Your task to perform on an android device: allow cookies in the chrome app Image 0: 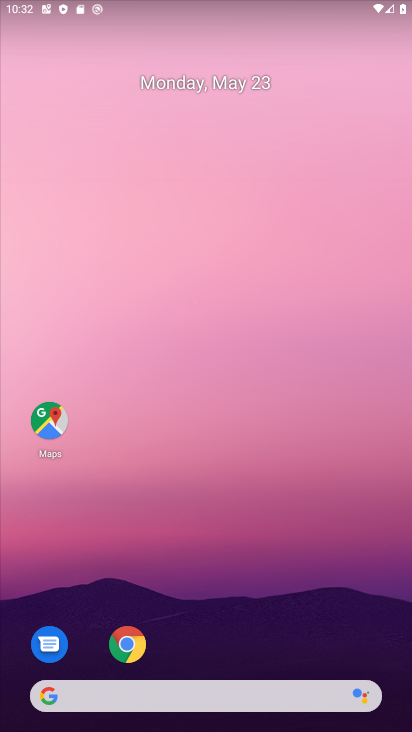
Step 0: drag from (333, 692) to (192, 246)
Your task to perform on an android device: allow cookies in the chrome app Image 1: 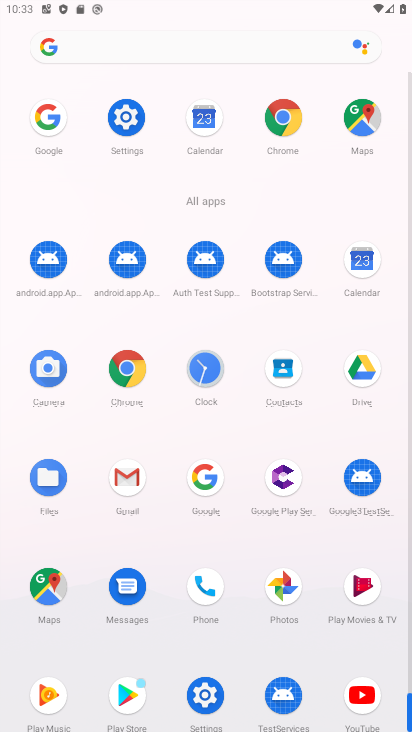
Step 1: click (275, 125)
Your task to perform on an android device: allow cookies in the chrome app Image 2: 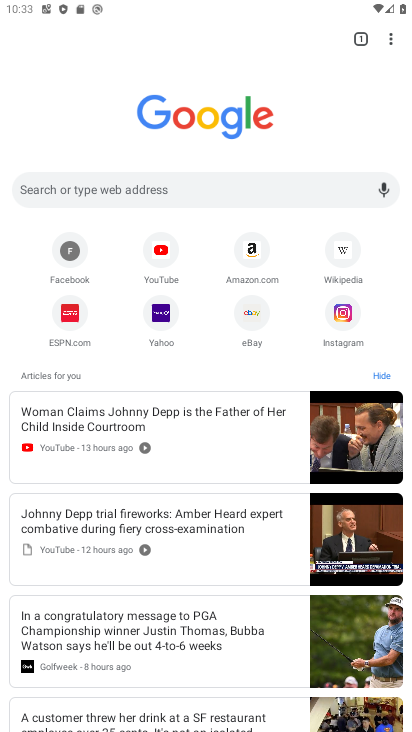
Step 2: click (384, 35)
Your task to perform on an android device: allow cookies in the chrome app Image 3: 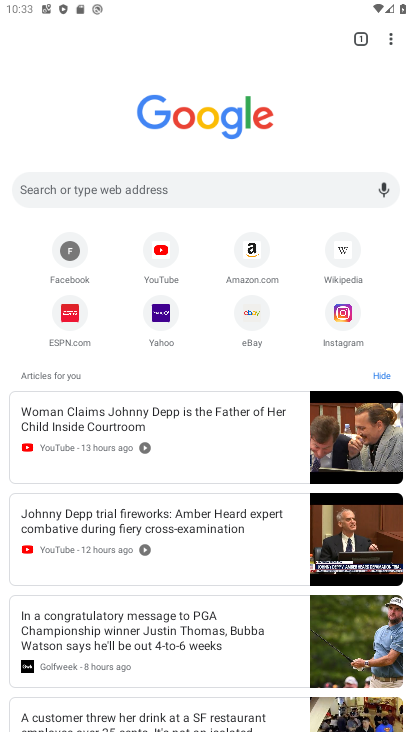
Step 3: drag from (388, 39) to (246, 321)
Your task to perform on an android device: allow cookies in the chrome app Image 4: 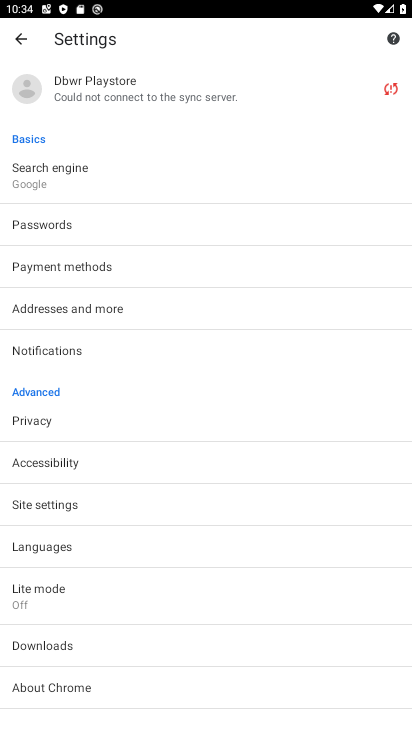
Step 4: click (250, 320)
Your task to perform on an android device: allow cookies in the chrome app Image 5: 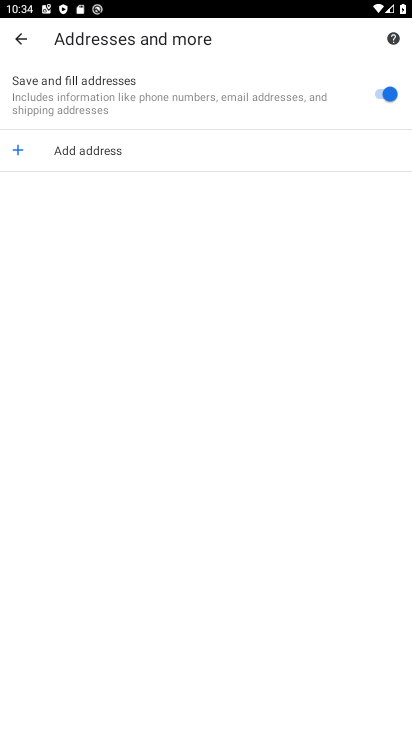
Step 5: click (21, 31)
Your task to perform on an android device: allow cookies in the chrome app Image 6: 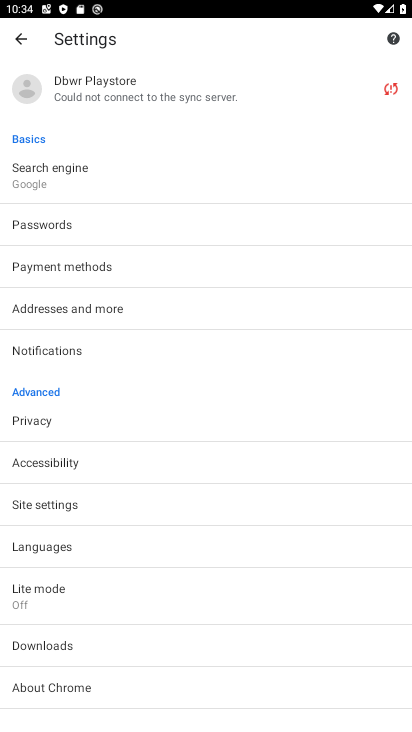
Step 6: click (30, 487)
Your task to perform on an android device: allow cookies in the chrome app Image 7: 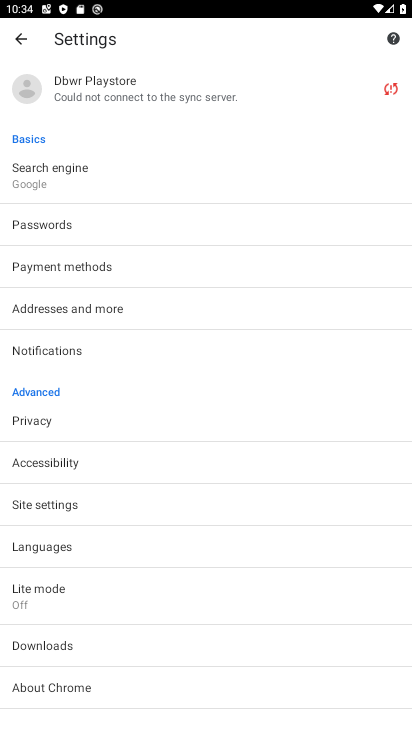
Step 7: click (28, 508)
Your task to perform on an android device: allow cookies in the chrome app Image 8: 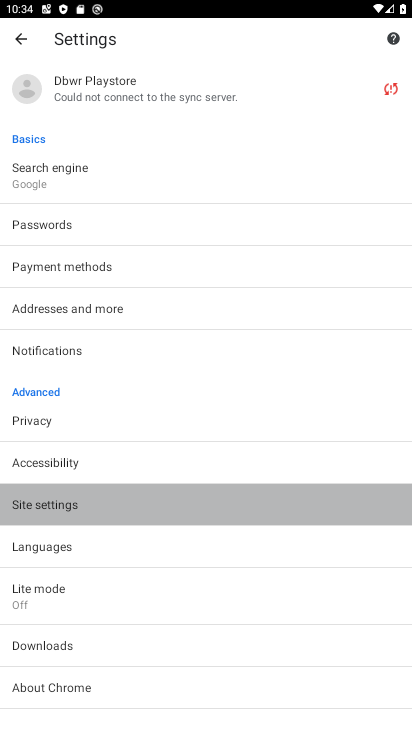
Step 8: click (36, 504)
Your task to perform on an android device: allow cookies in the chrome app Image 9: 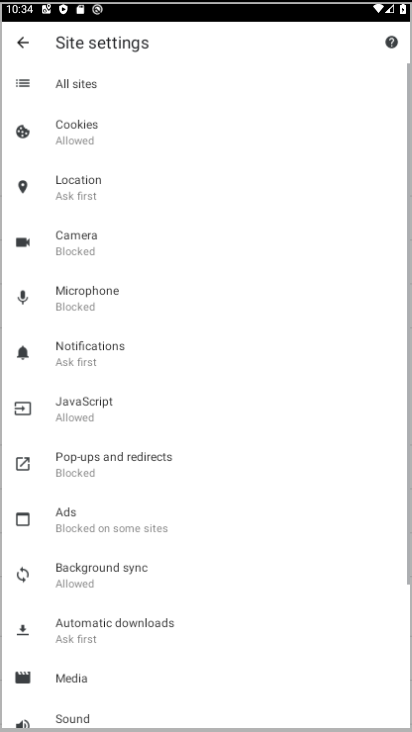
Step 9: click (37, 502)
Your task to perform on an android device: allow cookies in the chrome app Image 10: 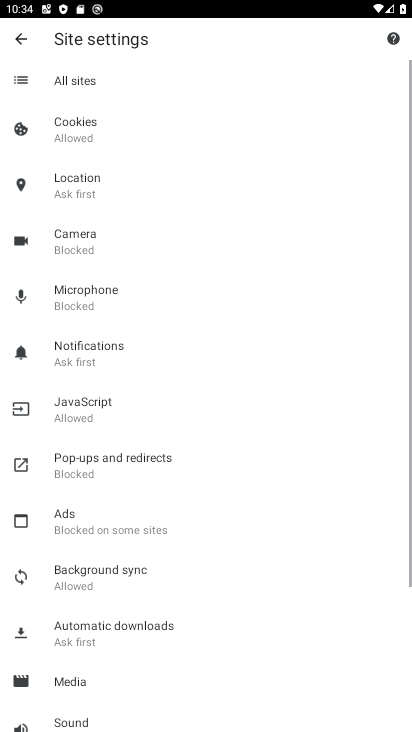
Step 10: click (40, 497)
Your task to perform on an android device: allow cookies in the chrome app Image 11: 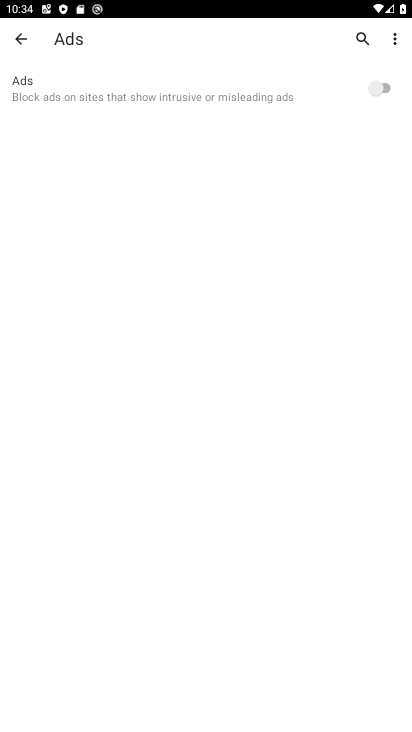
Step 11: click (21, 37)
Your task to perform on an android device: allow cookies in the chrome app Image 12: 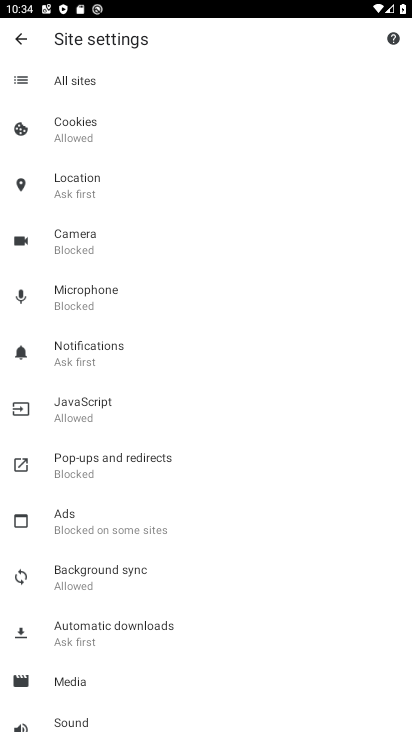
Step 12: click (72, 137)
Your task to perform on an android device: allow cookies in the chrome app Image 13: 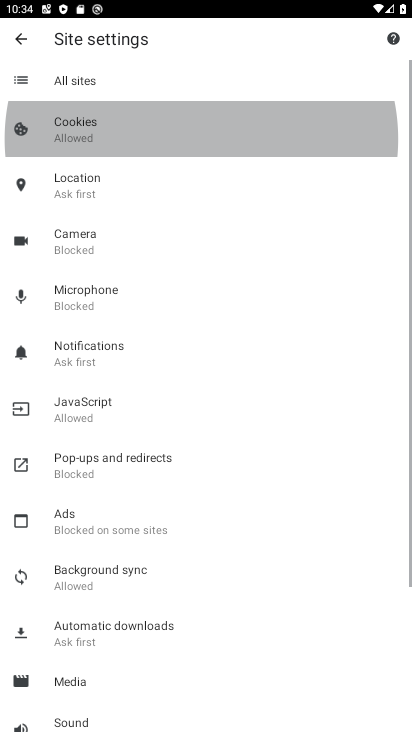
Step 13: click (72, 137)
Your task to perform on an android device: allow cookies in the chrome app Image 14: 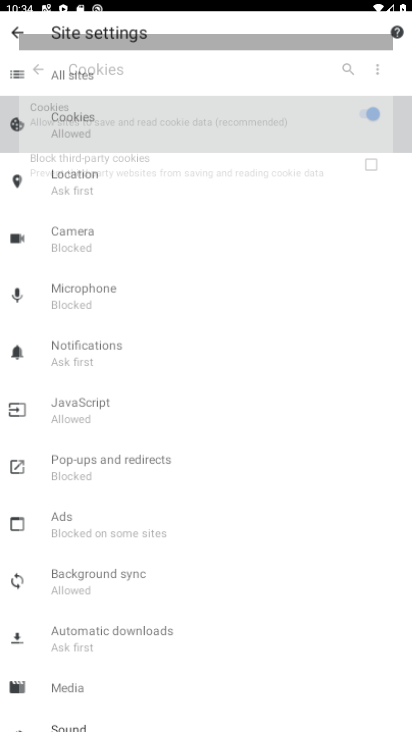
Step 14: click (72, 137)
Your task to perform on an android device: allow cookies in the chrome app Image 15: 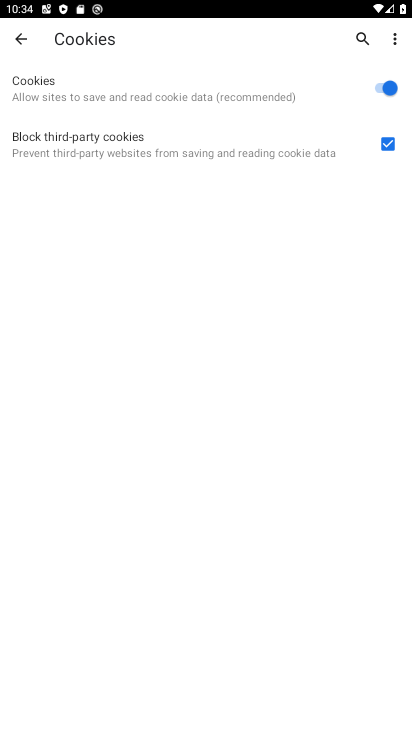
Step 15: task complete